Your task to perform on an android device: check google app version Image 0: 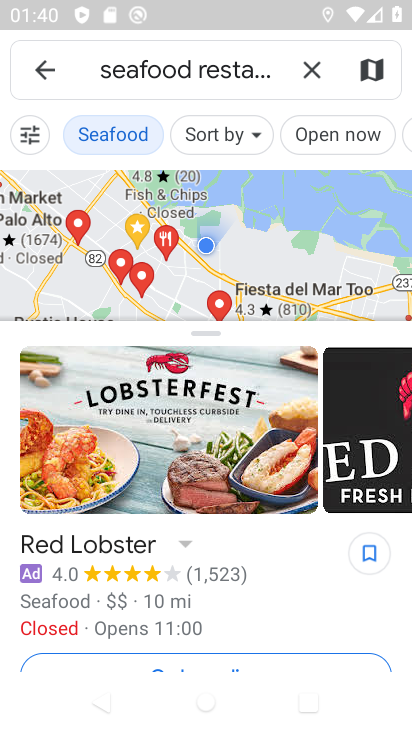
Step 0: drag from (212, 604) to (264, 281)
Your task to perform on an android device: check google app version Image 1: 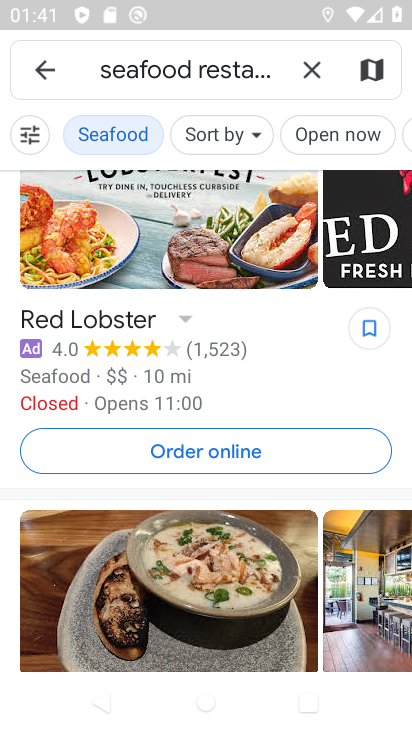
Step 1: press home button
Your task to perform on an android device: check google app version Image 2: 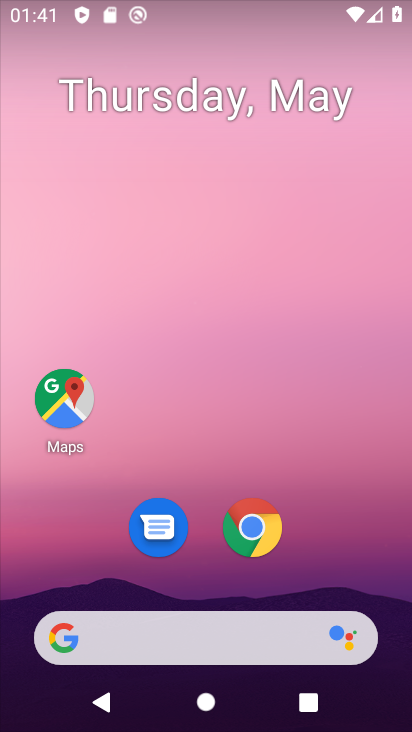
Step 2: drag from (178, 598) to (264, 298)
Your task to perform on an android device: check google app version Image 3: 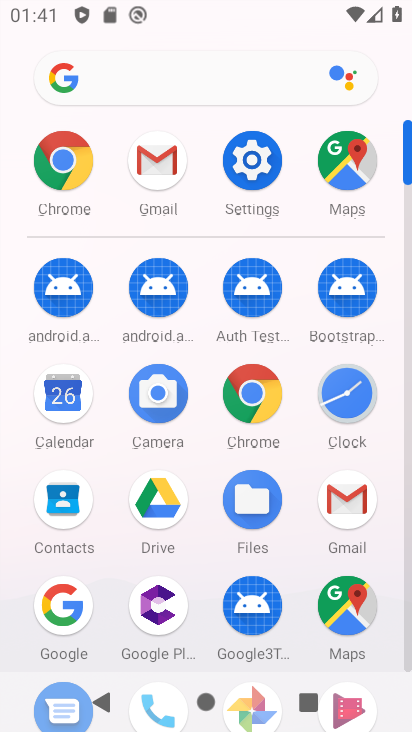
Step 3: click (44, 590)
Your task to perform on an android device: check google app version Image 4: 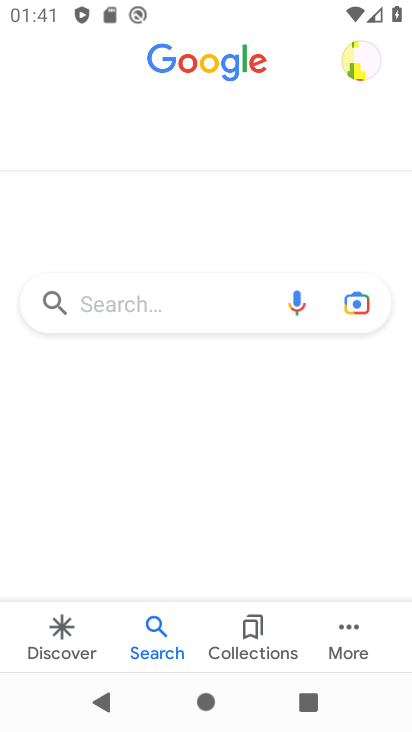
Step 4: click (327, 627)
Your task to perform on an android device: check google app version Image 5: 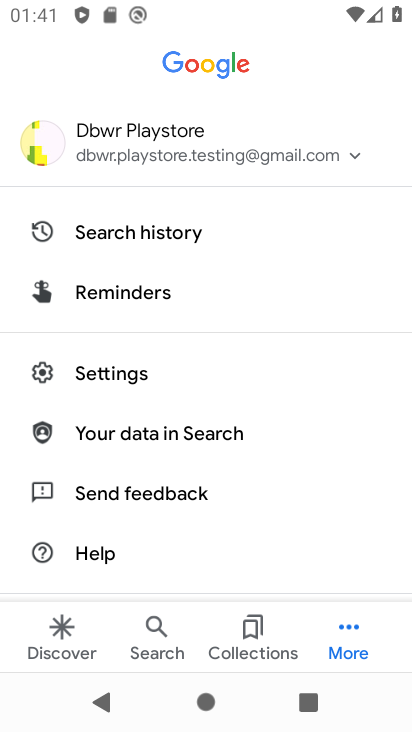
Step 5: click (104, 377)
Your task to perform on an android device: check google app version Image 6: 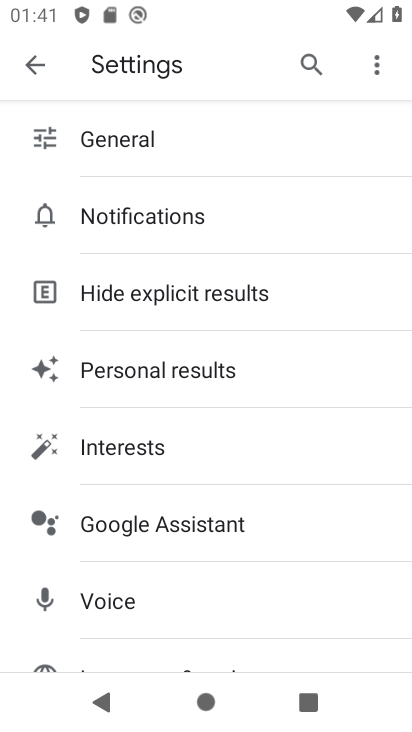
Step 6: drag from (107, 603) to (213, 287)
Your task to perform on an android device: check google app version Image 7: 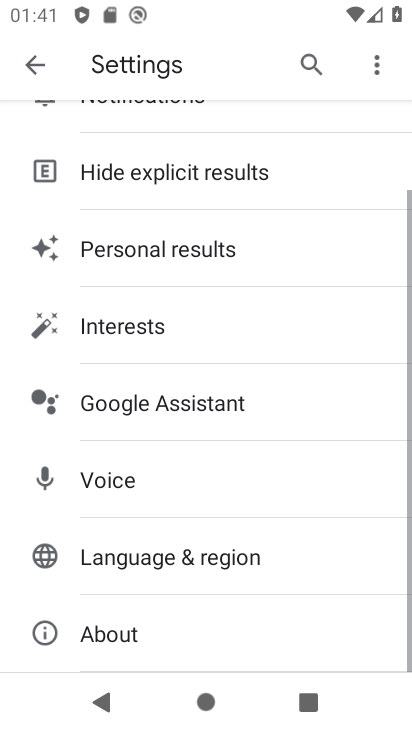
Step 7: drag from (227, 630) to (258, 391)
Your task to perform on an android device: check google app version Image 8: 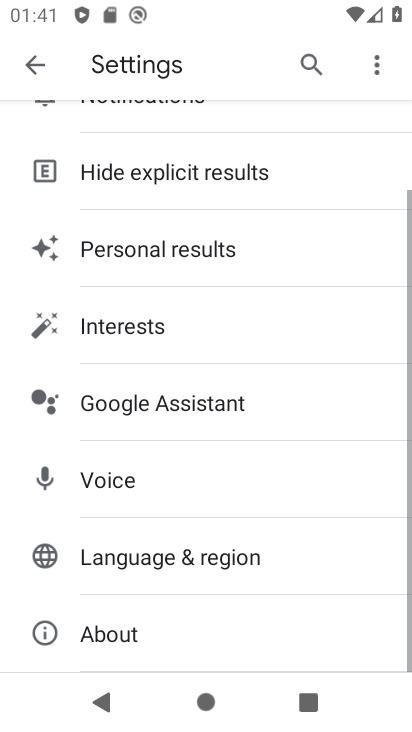
Step 8: click (184, 630)
Your task to perform on an android device: check google app version Image 9: 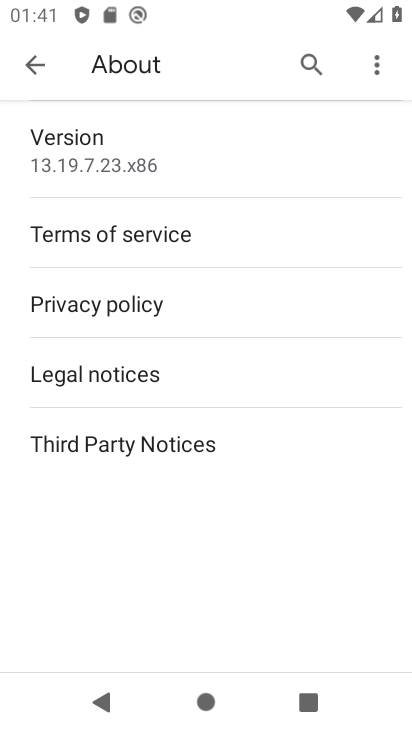
Step 9: click (301, 166)
Your task to perform on an android device: check google app version Image 10: 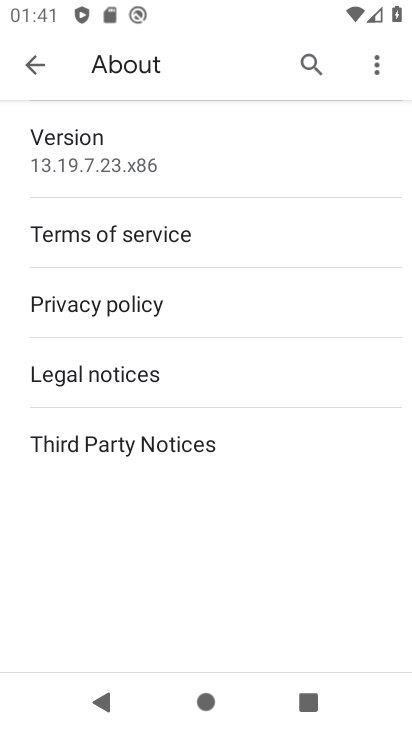
Step 10: task complete